Your task to perform on an android device: set an alarm Image 0: 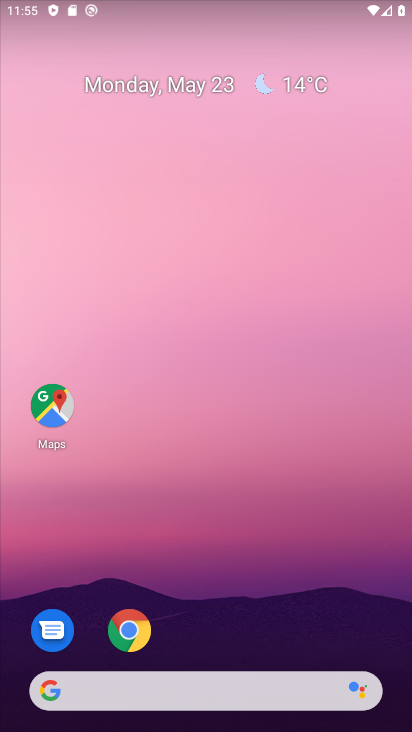
Step 0: press home button
Your task to perform on an android device: set an alarm Image 1: 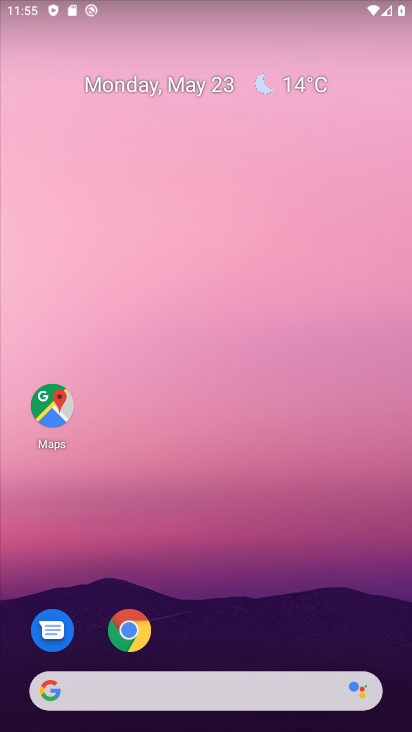
Step 1: drag from (378, 588) to (374, 144)
Your task to perform on an android device: set an alarm Image 2: 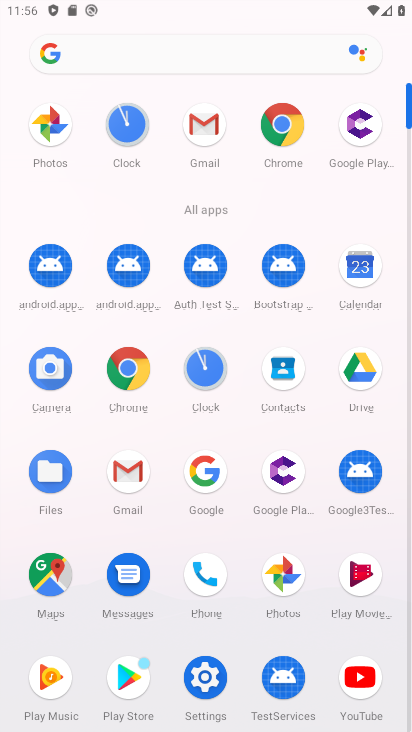
Step 2: click (192, 395)
Your task to perform on an android device: set an alarm Image 3: 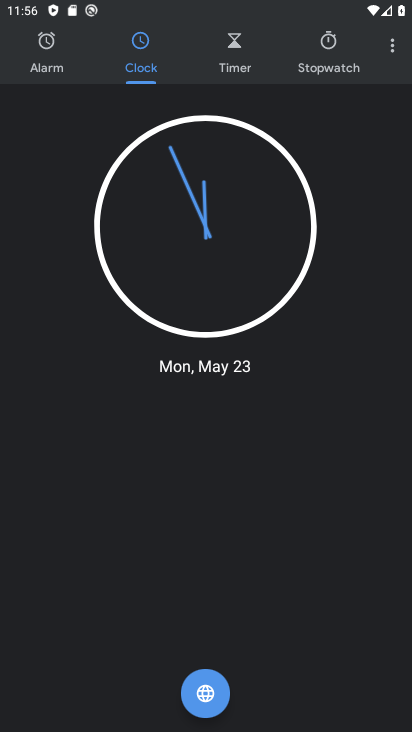
Step 3: click (53, 59)
Your task to perform on an android device: set an alarm Image 4: 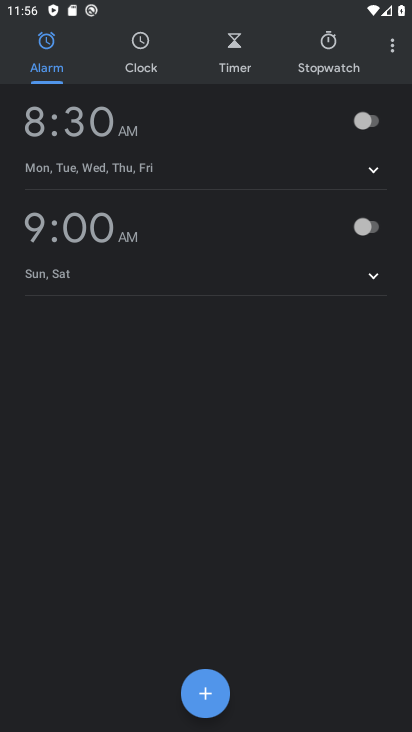
Step 4: click (201, 689)
Your task to perform on an android device: set an alarm Image 5: 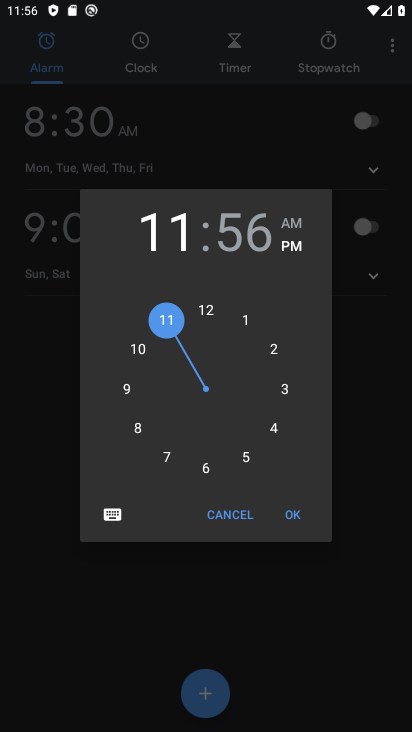
Step 5: click (287, 515)
Your task to perform on an android device: set an alarm Image 6: 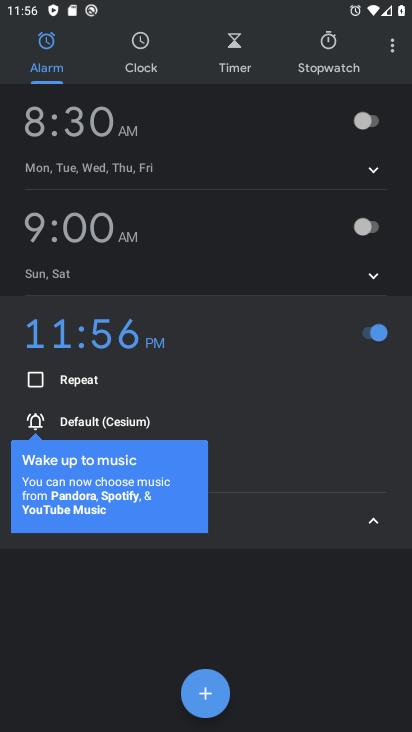
Step 6: task complete